Your task to perform on an android device: set an alarm Image 0: 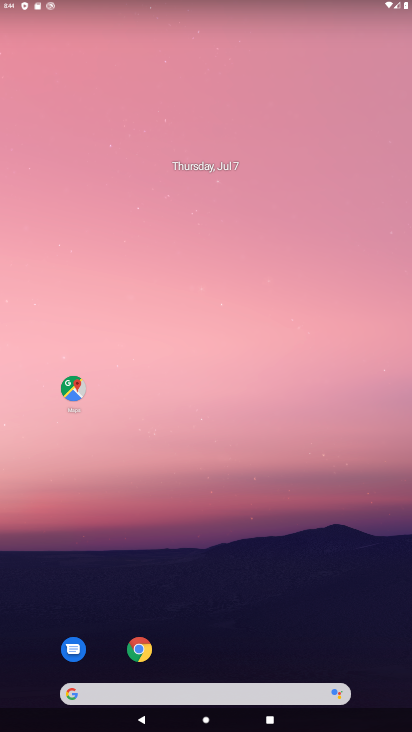
Step 0: drag from (287, 686) to (354, 142)
Your task to perform on an android device: set an alarm Image 1: 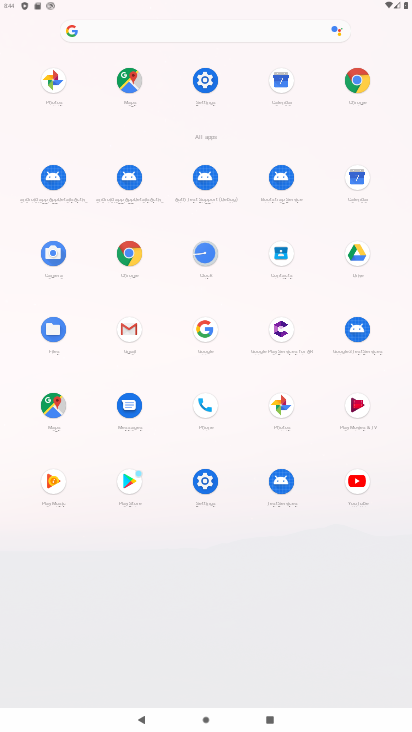
Step 1: click (207, 259)
Your task to perform on an android device: set an alarm Image 2: 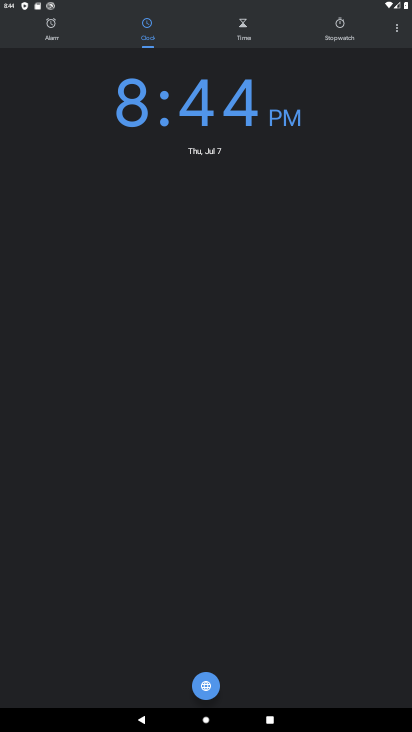
Step 2: click (50, 34)
Your task to perform on an android device: set an alarm Image 3: 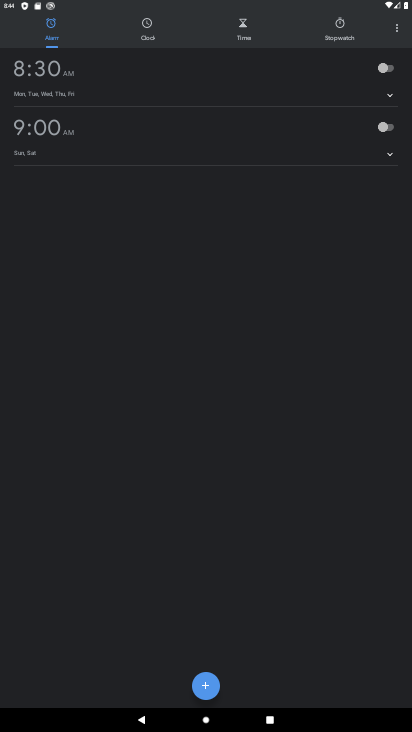
Step 3: click (387, 67)
Your task to perform on an android device: set an alarm Image 4: 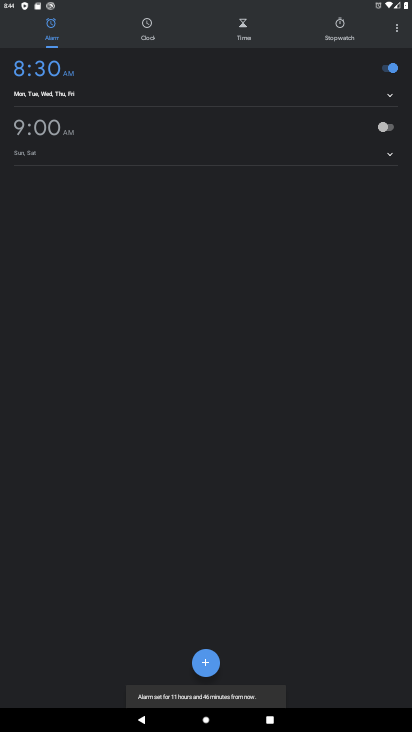
Step 4: task complete